Your task to perform on an android device: refresh tabs in the chrome app Image 0: 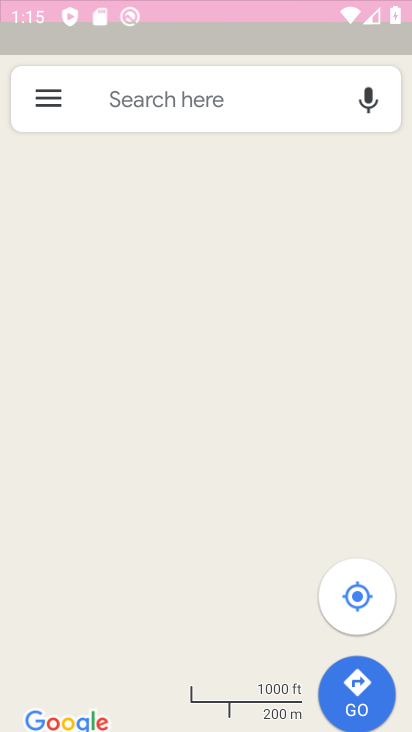
Step 0: drag from (343, 290) to (343, 247)
Your task to perform on an android device: refresh tabs in the chrome app Image 1: 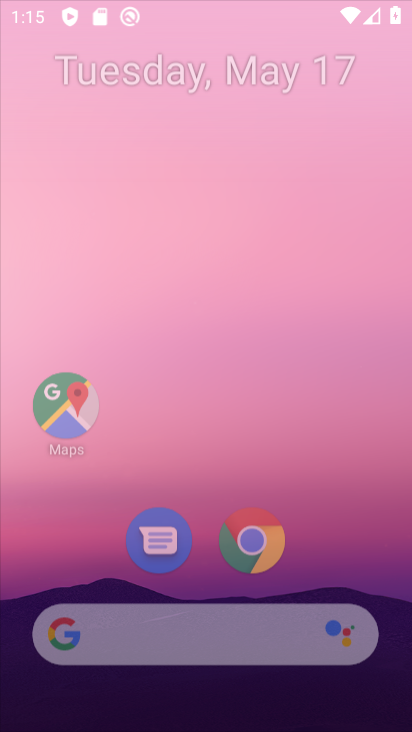
Step 1: drag from (299, 555) to (310, 109)
Your task to perform on an android device: refresh tabs in the chrome app Image 2: 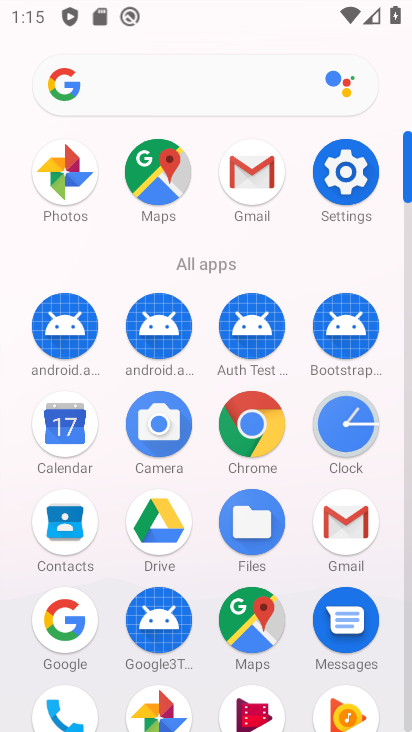
Step 2: click (340, 156)
Your task to perform on an android device: refresh tabs in the chrome app Image 3: 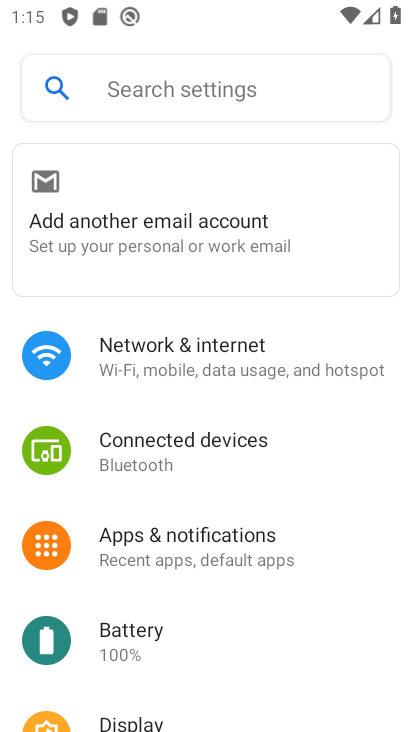
Step 3: press home button
Your task to perform on an android device: refresh tabs in the chrome app Image 4: 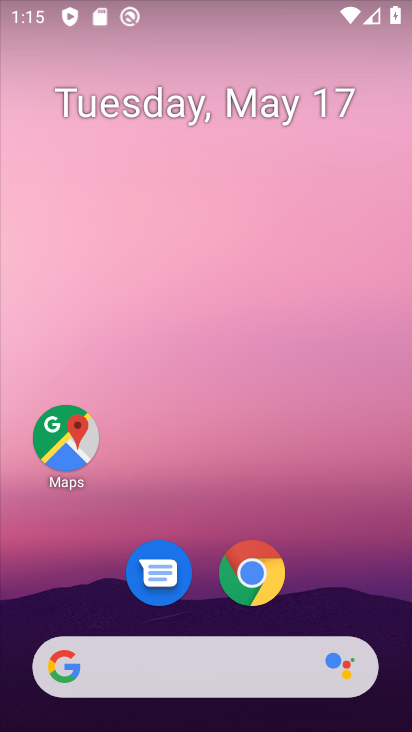
Step 4: click (249, 600)
Your task to perform on an android device: refresh tabs in the chrome app Image 5: 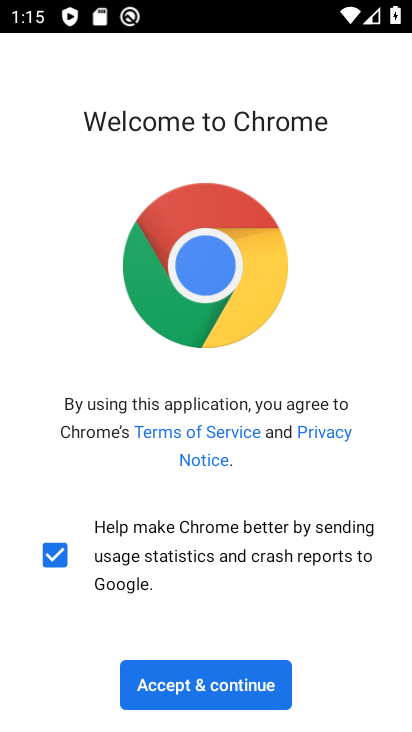
Step 5: click (196, 690)
Your task to perform on an android device: refresh tabs in the chrome app Image 6: 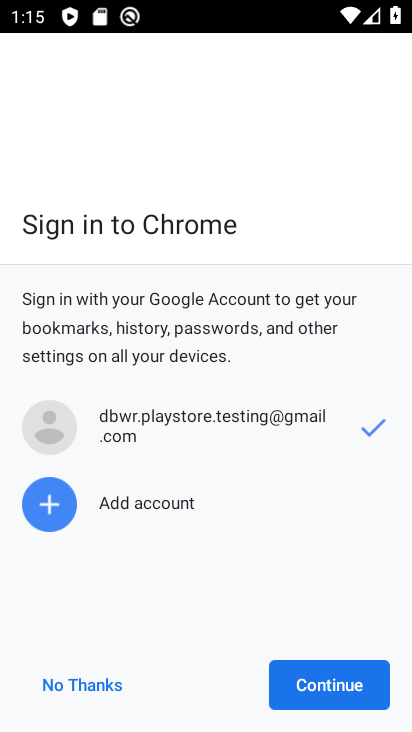
Step 6: click (344, 692)
Your task to perform on an android device: refresh tabs in the chrome app Image 7: 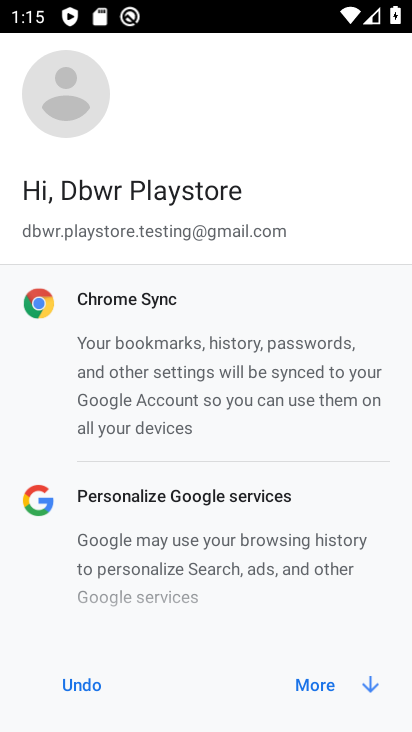
Step 7: click (344, 690)
Your task to perform on an android device: refresh tabs in the chrome app Image 8: 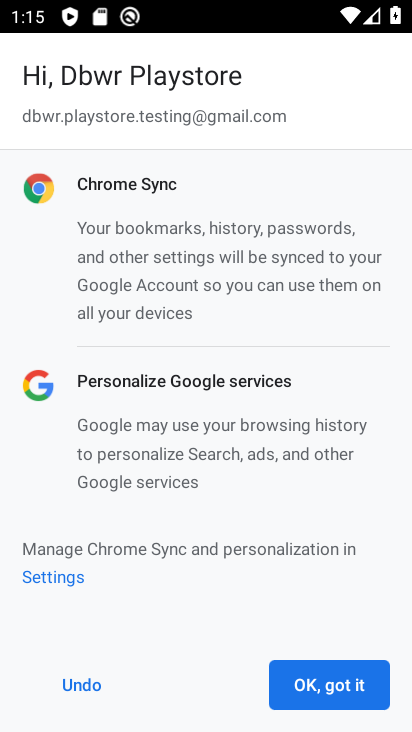
Step 8: click (344, 690)
Your task to perform on an android device: refresh tabs in the chrome app Image 9: 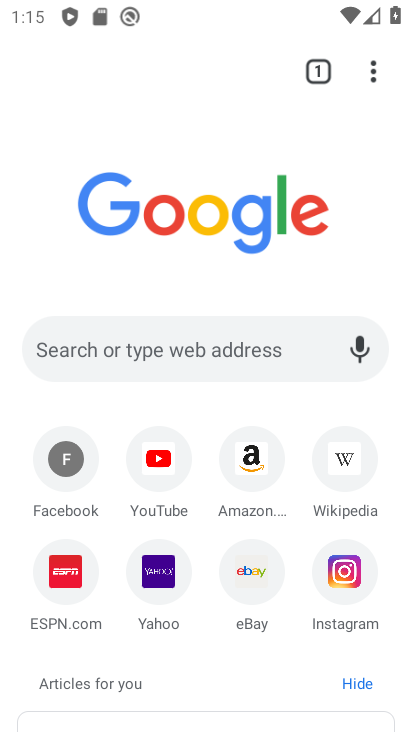
Step 9: click (370, 81)
Your task to perform on an android device: refresh tabs in the chrome app Image 10: 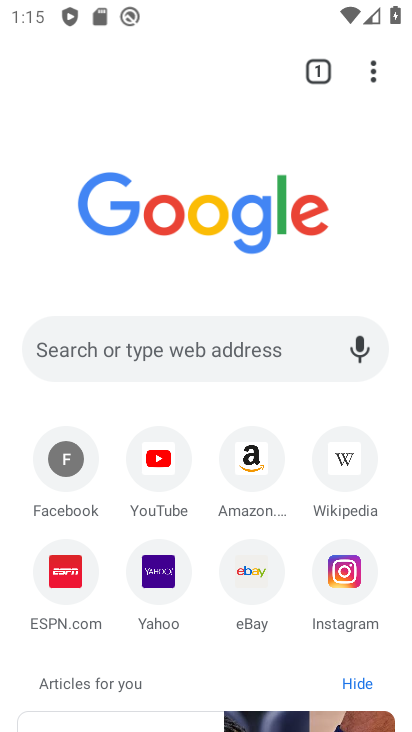
Step 10: click (370, 81)
Your task to perform on an android device: refresh tabs in the chrome app Image 11: 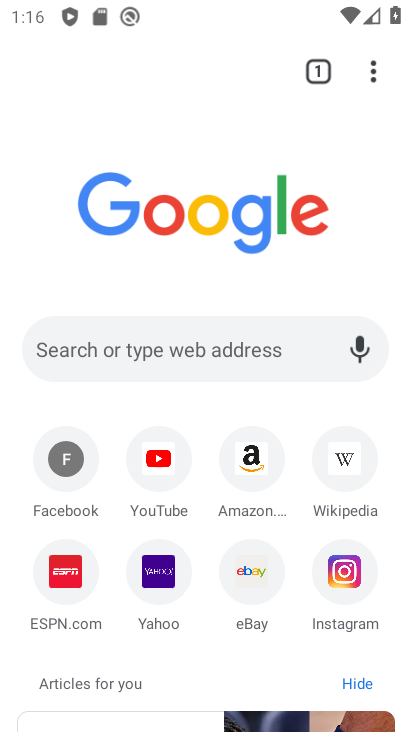
Step 11: task complete